Your task to perform on an android device: Open sound settings Image 0: 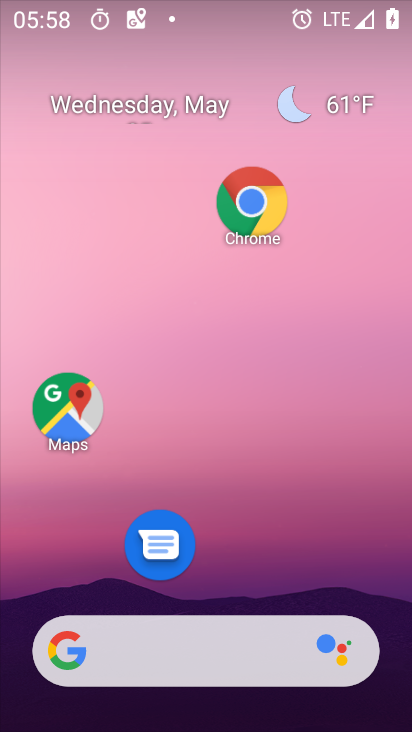
Step 0: drag from (227, 548) to (227, 107)
Your task to perform on an android device: Open sound settings Image 1: 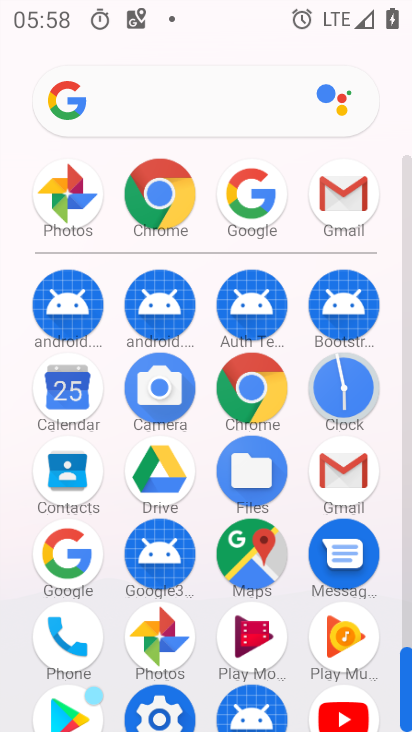
Step 1: drag from (186, 621) to (186, 349)
Your task to perform on an android device: Open sound settings Image 2: 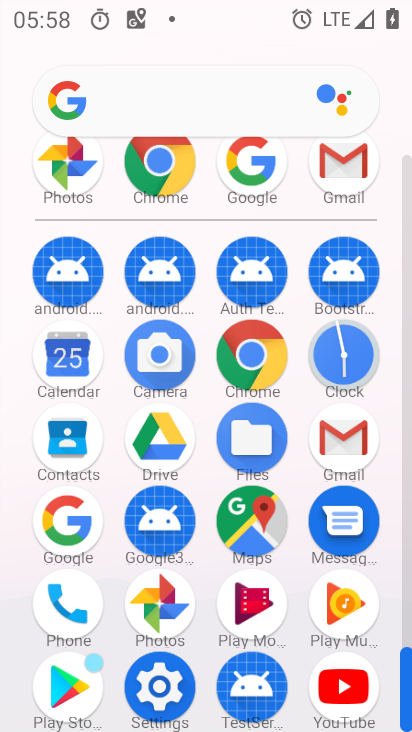
Step 2: click (158, 698)
Your task to perform on an android device: Open sound settings Image 3: 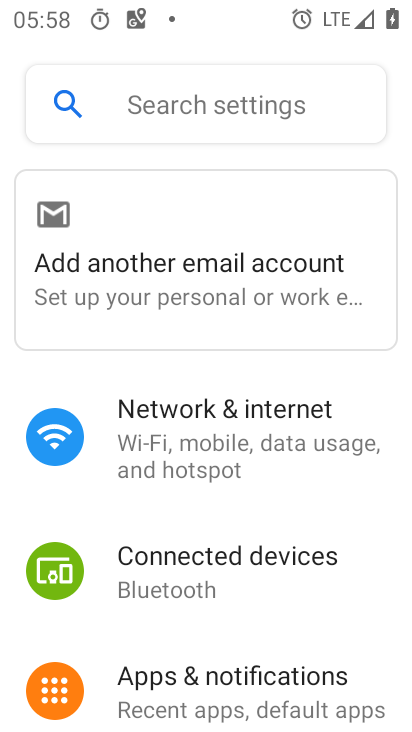
Step 3: drag from (269, 708) to (256, 386)
Your task to perform on an android device: Open sound settings Image 4: 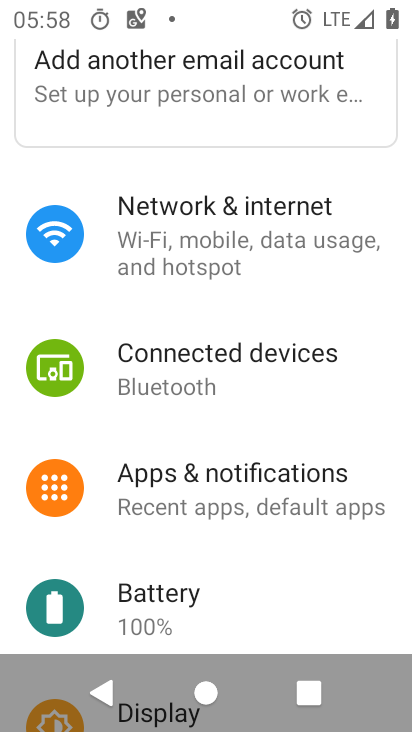
Step 4: drag from (238, 610) to (238, 435)
Your task to perform on an android device: Open sound settings Image 5: 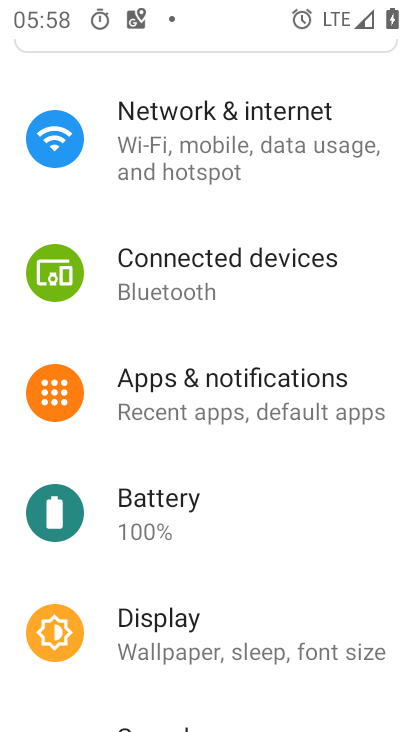
Step 5: drag from (199, 681) to (200, 374)
Your task to perform on an android device: Open sound settings Image 6: 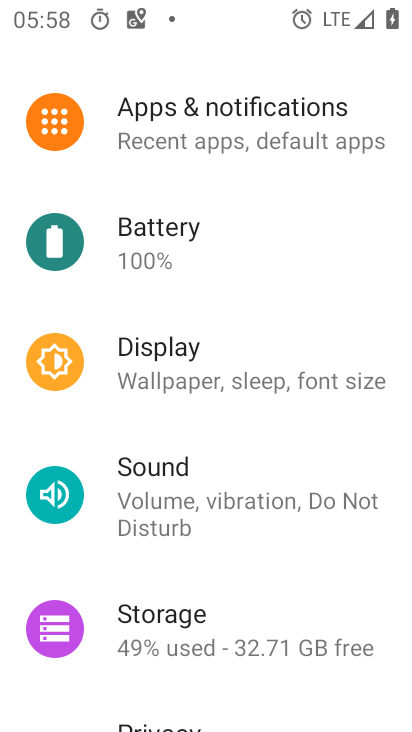
Step 6: drag from (240, 656) to (238, 425)
Your task to perform on an android device: Open sound settings Image 7: 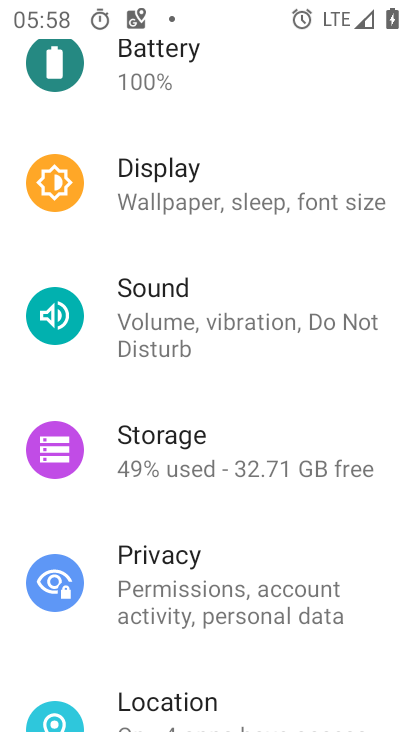
Step 7: click (196, 314)
Your task to perform on an android device: Open sound settings Image 8: 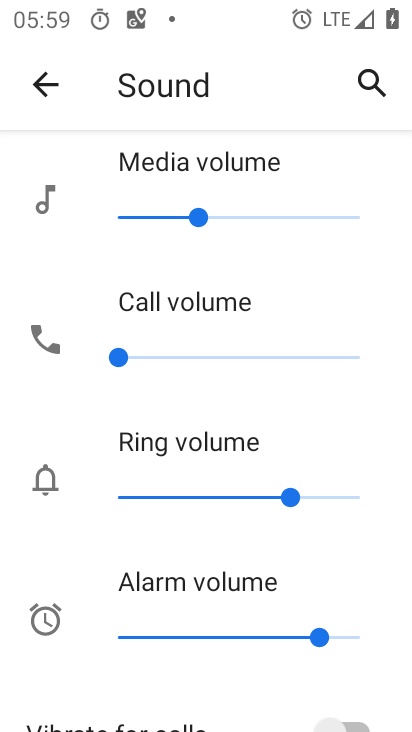
Step 8: task complete